Your task to perform on an android device: toggle wifi Image 0: 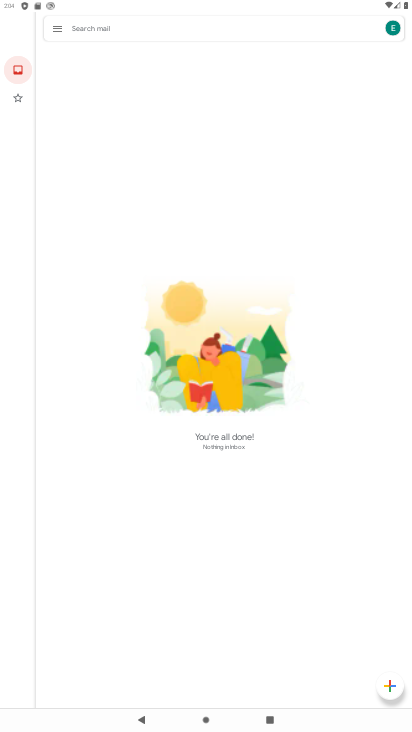
Step 0: press home button
Your task to perform on an android device: toggle wifi Image 1: 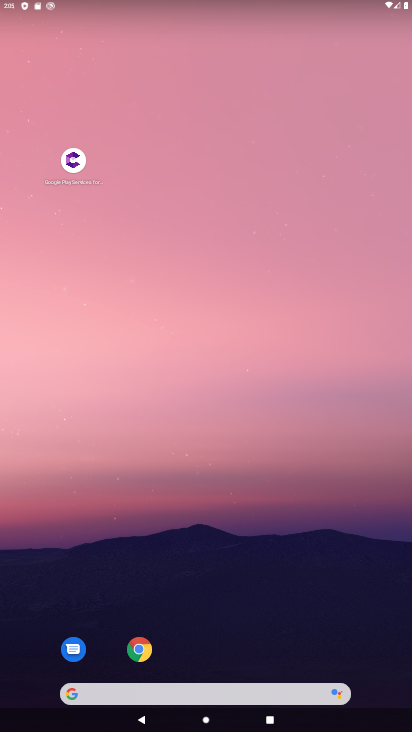
Step 1: drag from (229, 652) to (167, 14)
Your task to perform on an android device: toggle wifi Image 2: 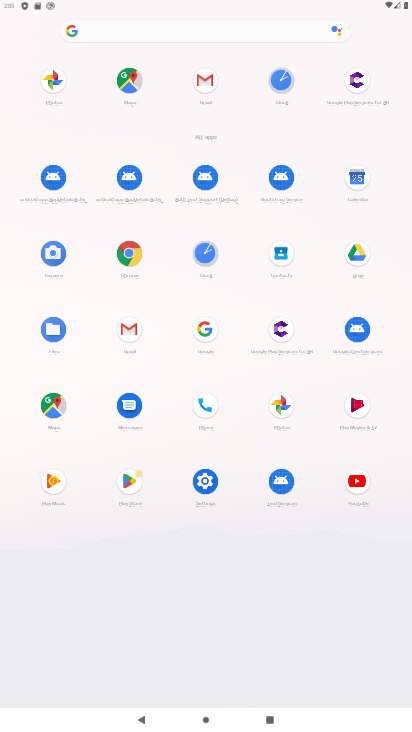
Step 2: click (195, 476)
Your task to perform on an android device: toggle wifi Image 3: 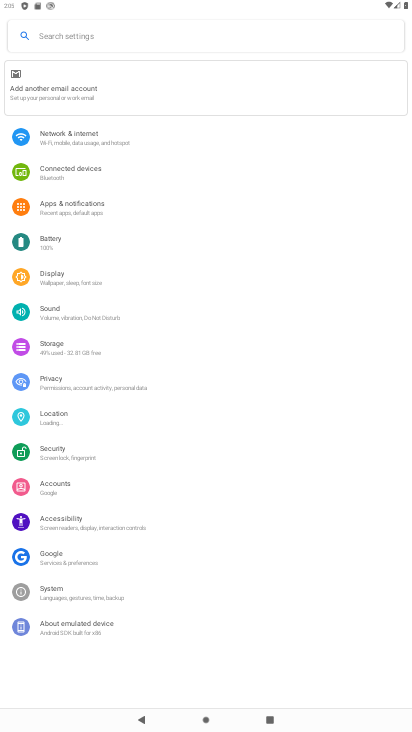
Step 3: click (60, 137)
Your task to perform on an android device: toggle wifi Image 4: 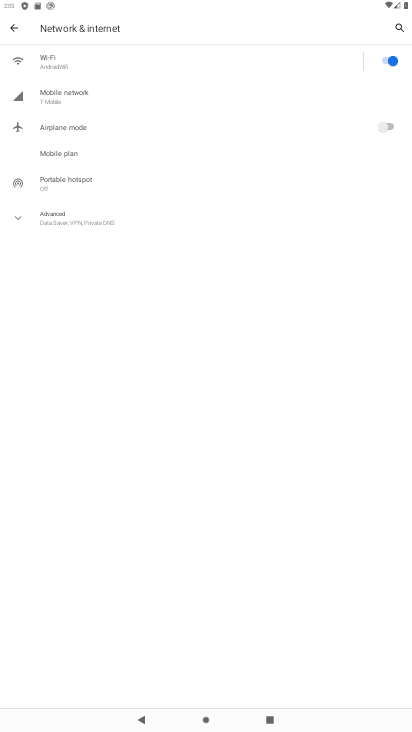
Step 4: click (382, 65)
Your task to perform on an android device: toggle wifi Image 5: 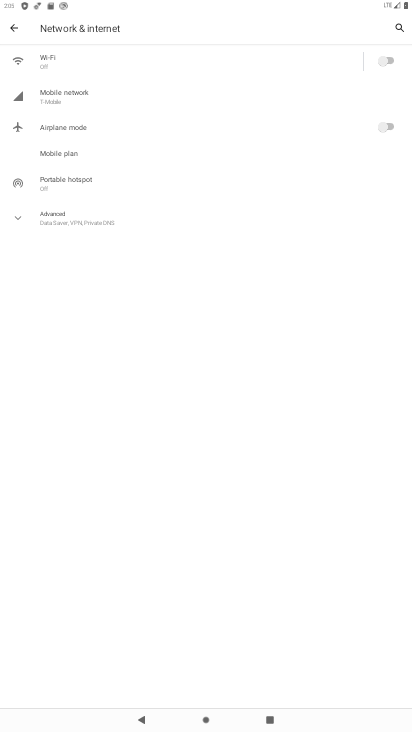
Step 5: task complete